Your task to perform on an android device: Open wifi settings Image 0: 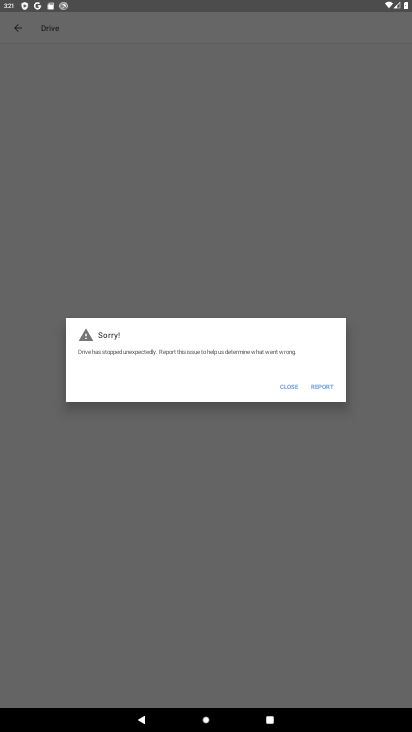
Step 0: press home button
Your task to perform on an android device: Open wifi settings Image 1: 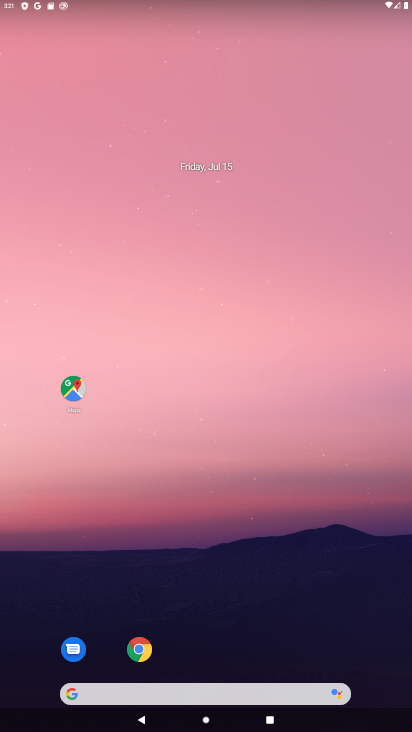
Step 1: drag from (220, 632) to (212, 273)
Your task to perform on an android device: Open wifi settings Image 2: 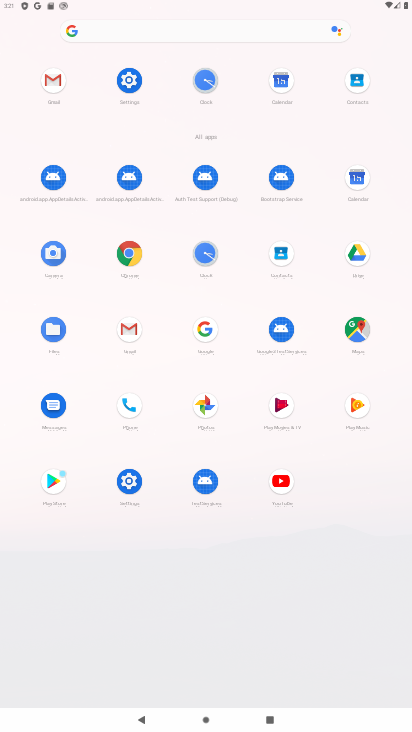
Step 2: click (138, 96)
Your task to perform on an android device: Open wifi settings Image 3: 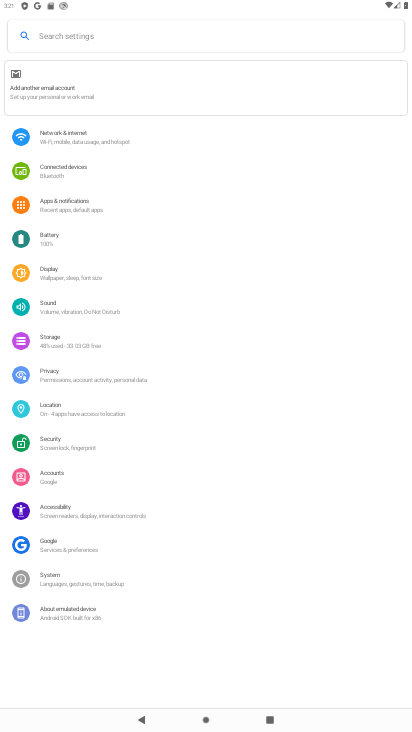
Step 3: click (96, 147)
Your task to perform on an android device: Open wifi settings Image 4: 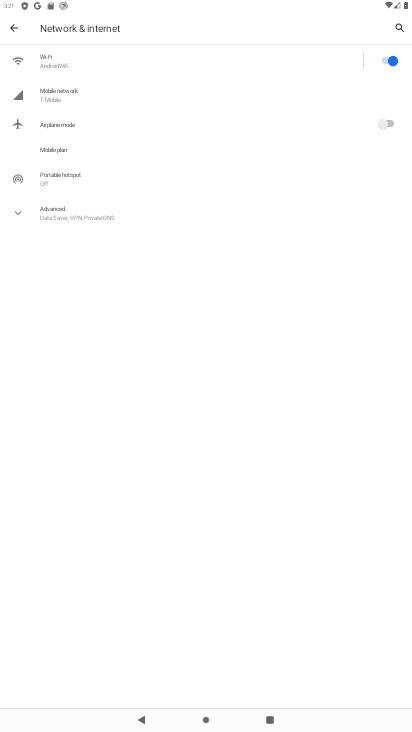
Step 4: click (57, 66)
Your task to perform on an android device: Open wifi settings Image 5: 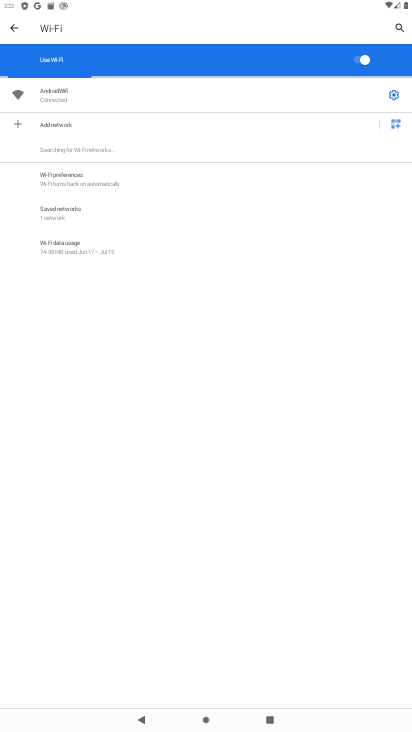
Step 5: task complete